Your task to perform on an android device: open app "Booking.com: Hotels and more" (install if not already installed) Image 0: 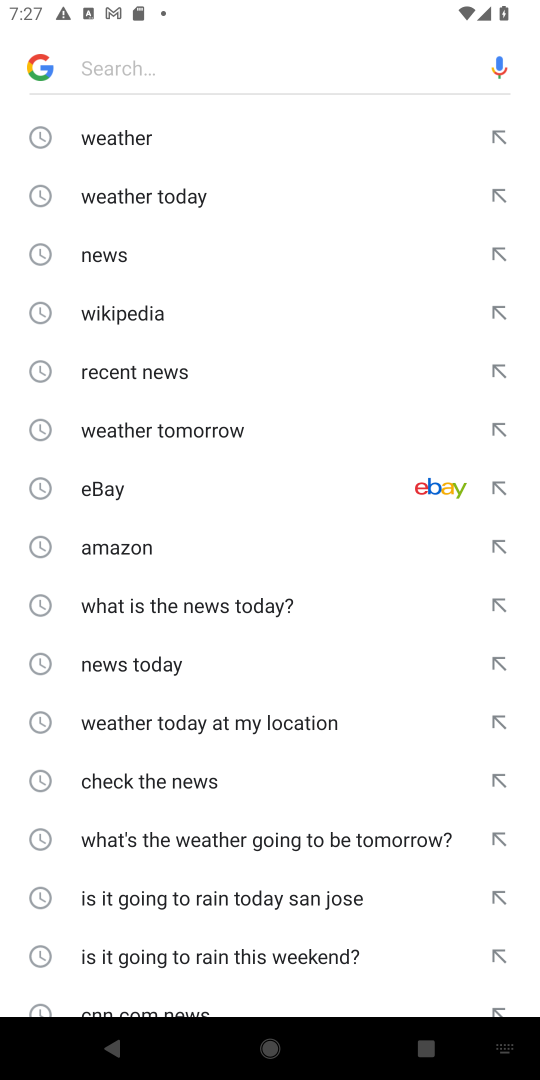
Step 0: press home button
Your task to perform on an android device: open app "Booking.com: Hotels and more" (install if not already installed) Image 1: 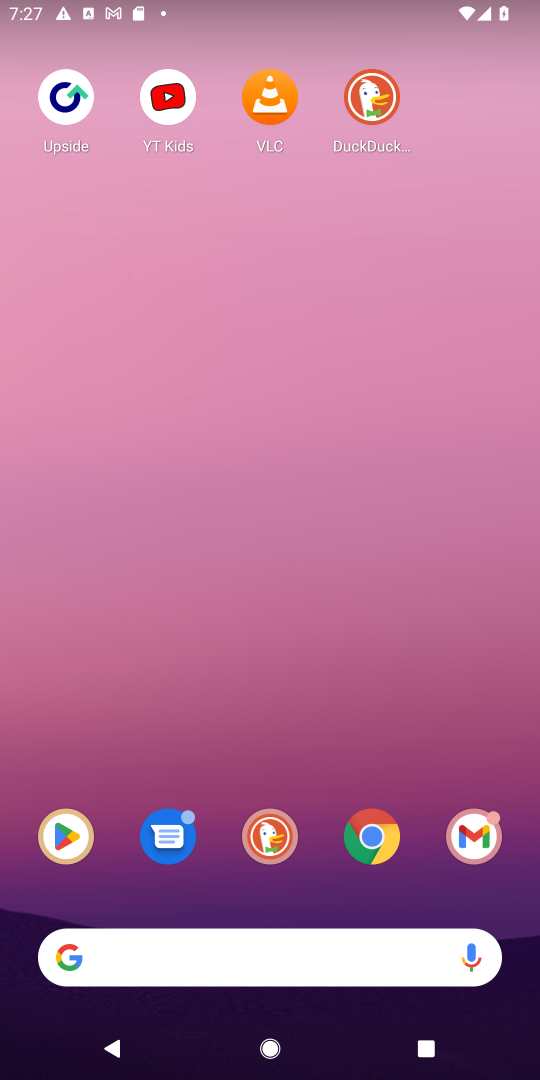
Step 1: click (69, 831)
Your task to perform on an android device: open app "Booking.com: Hotels and more" (install if not already installed) Image 2: 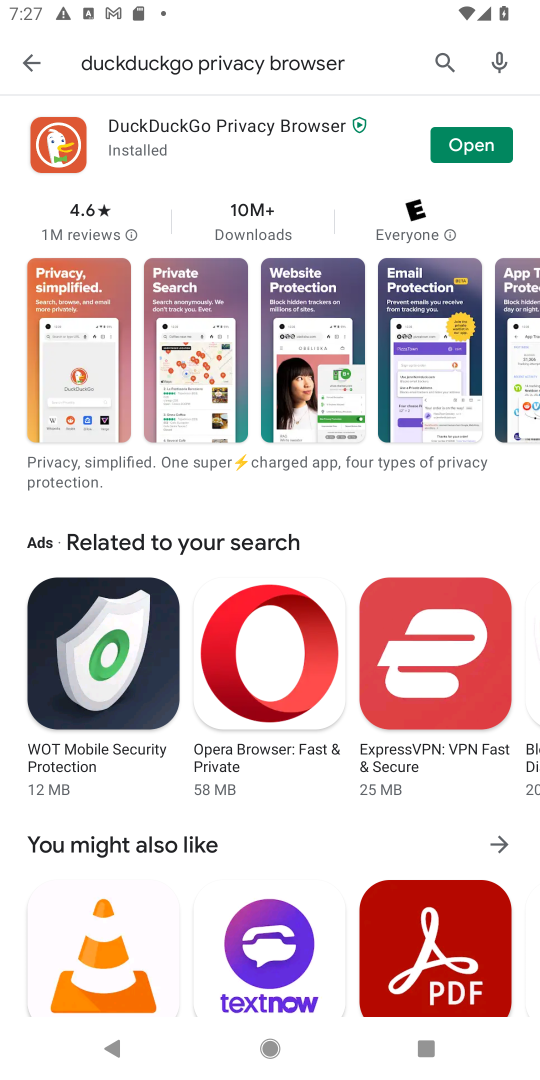
Step 2: click (447, 57)
Your task to perform on an android device: open app "Booking.com: Hotels and more" (install if not already installed) Image 3: 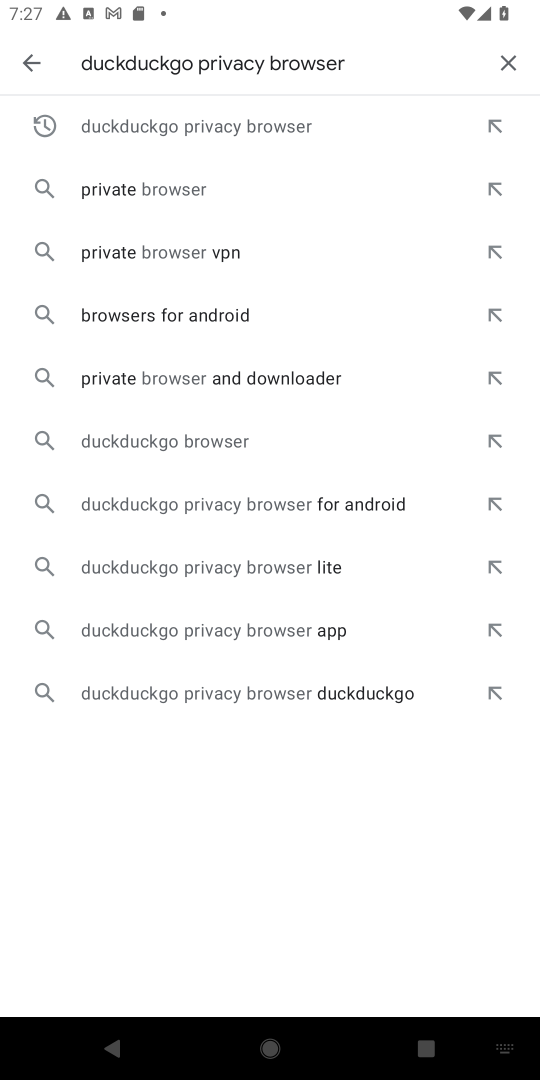
Step 3: click (511, 50)
Your task to perform on an android device: open app "Booking.com: Hotels and more" (install if not already installed) Image 4: 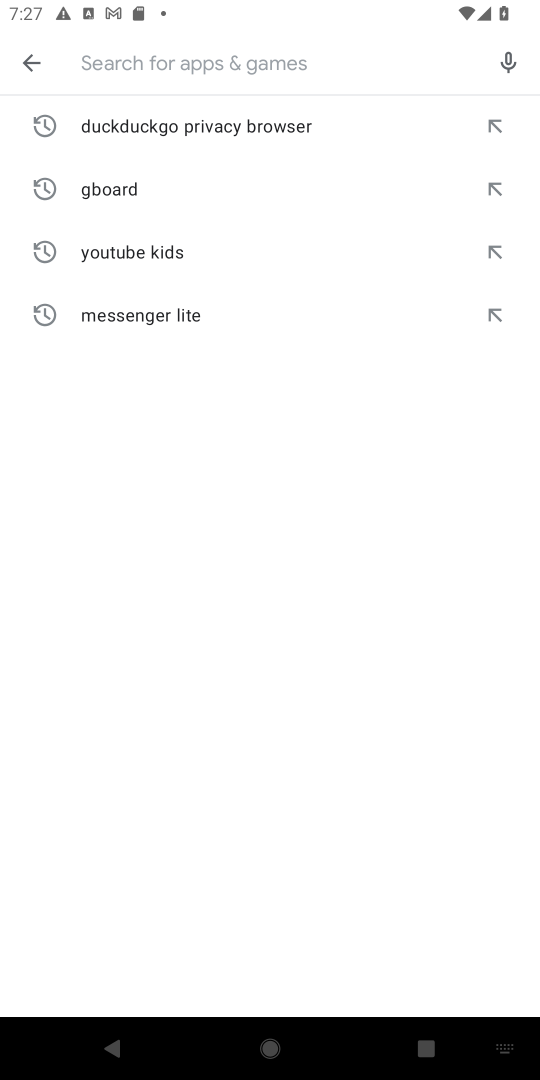
Step 4: type "Booking.com: Hotels and more"
Your task to perform on an android device: open app "Booking.com: Hotels and more" (install if not already installed) Image 5: 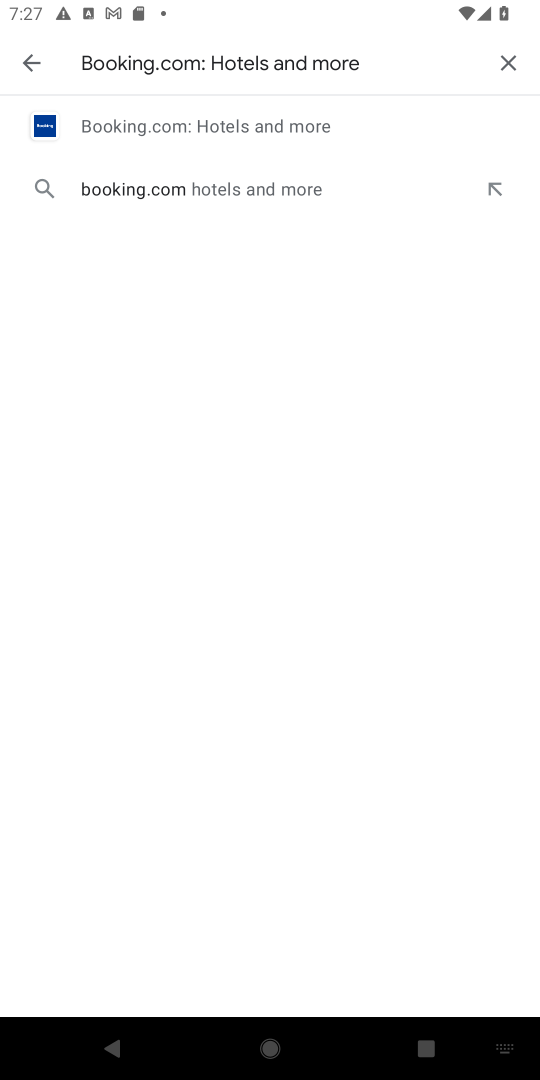
Step 5: click (252, 120)
Your task to perform on an android device: open app "Booking.com: Hotels and more" (install if not already installed) Image 6: 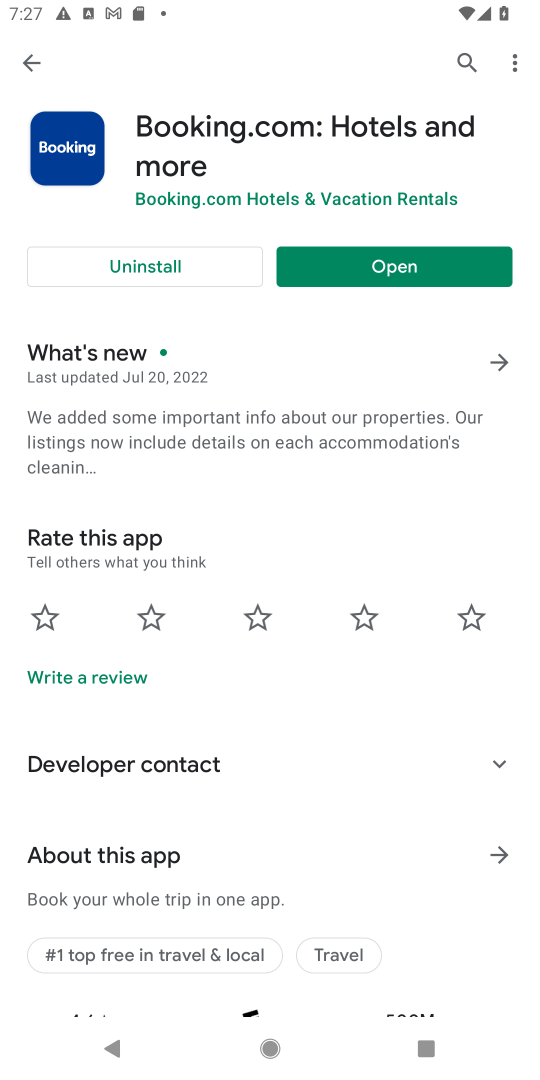
Step 6: task complete